Your task to perform on an android device: toggle translation in the chrome app Image 0: 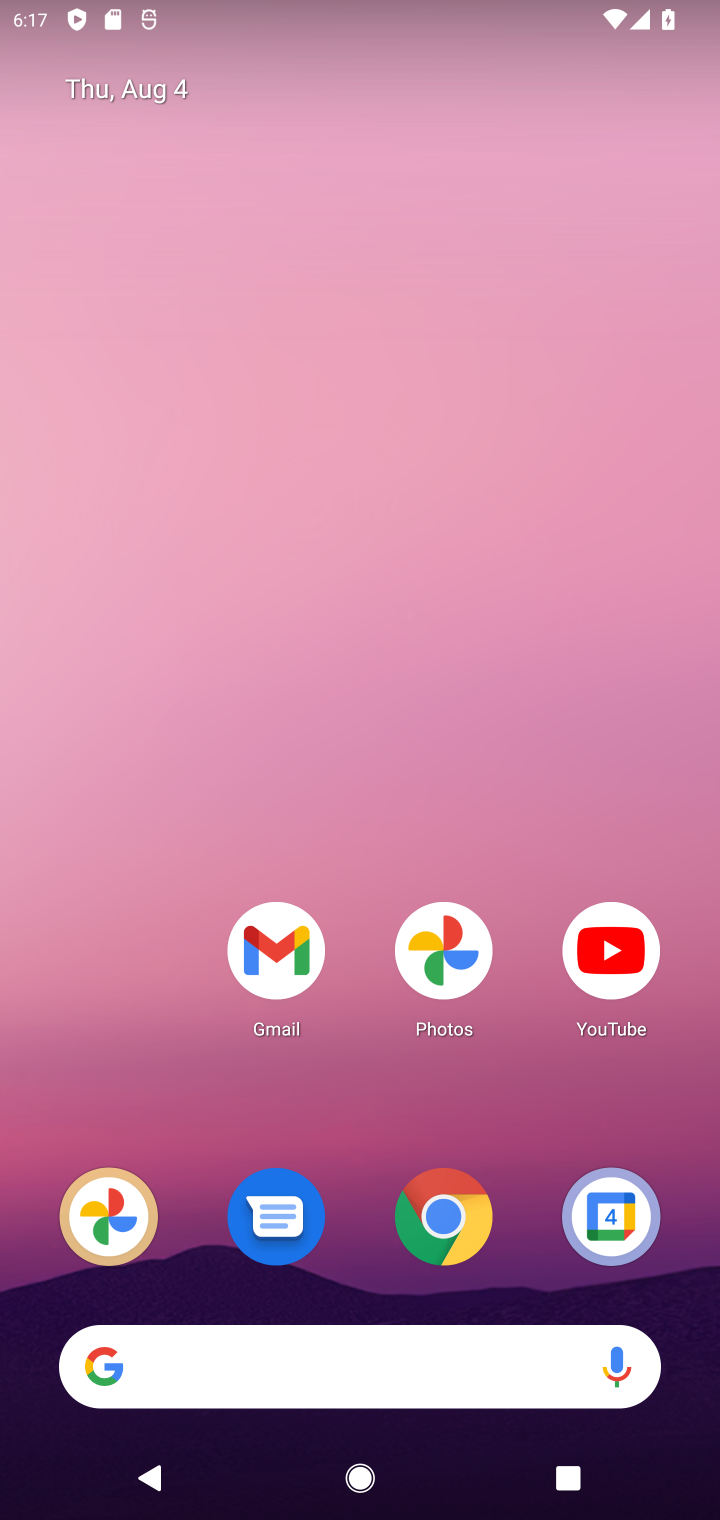
Step 0: press home button
Your task to perform on an android device: toggle translation in the chrome app Image 1: 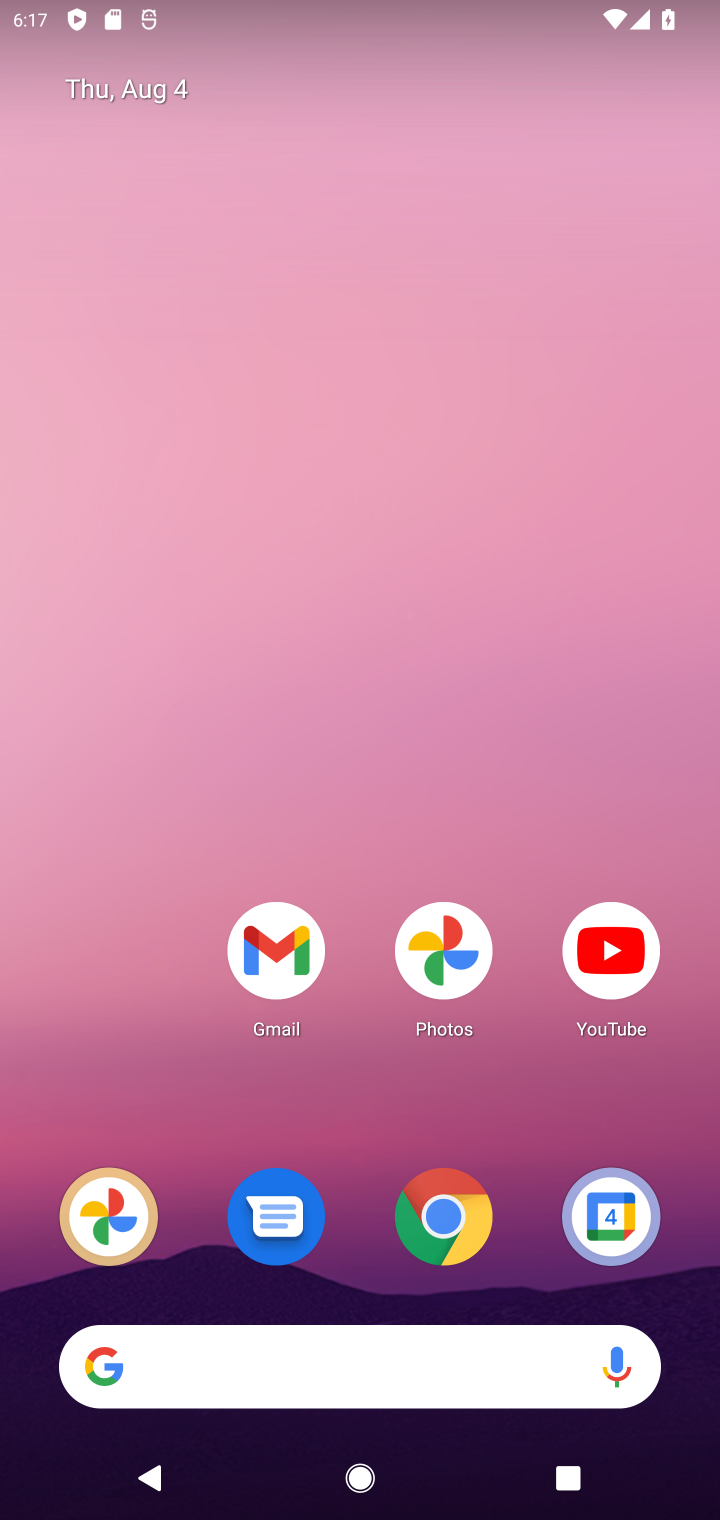
Step 1: click (480, 1197)
Your task to perform on an android device: toggle translation in the chrome app Image 2: 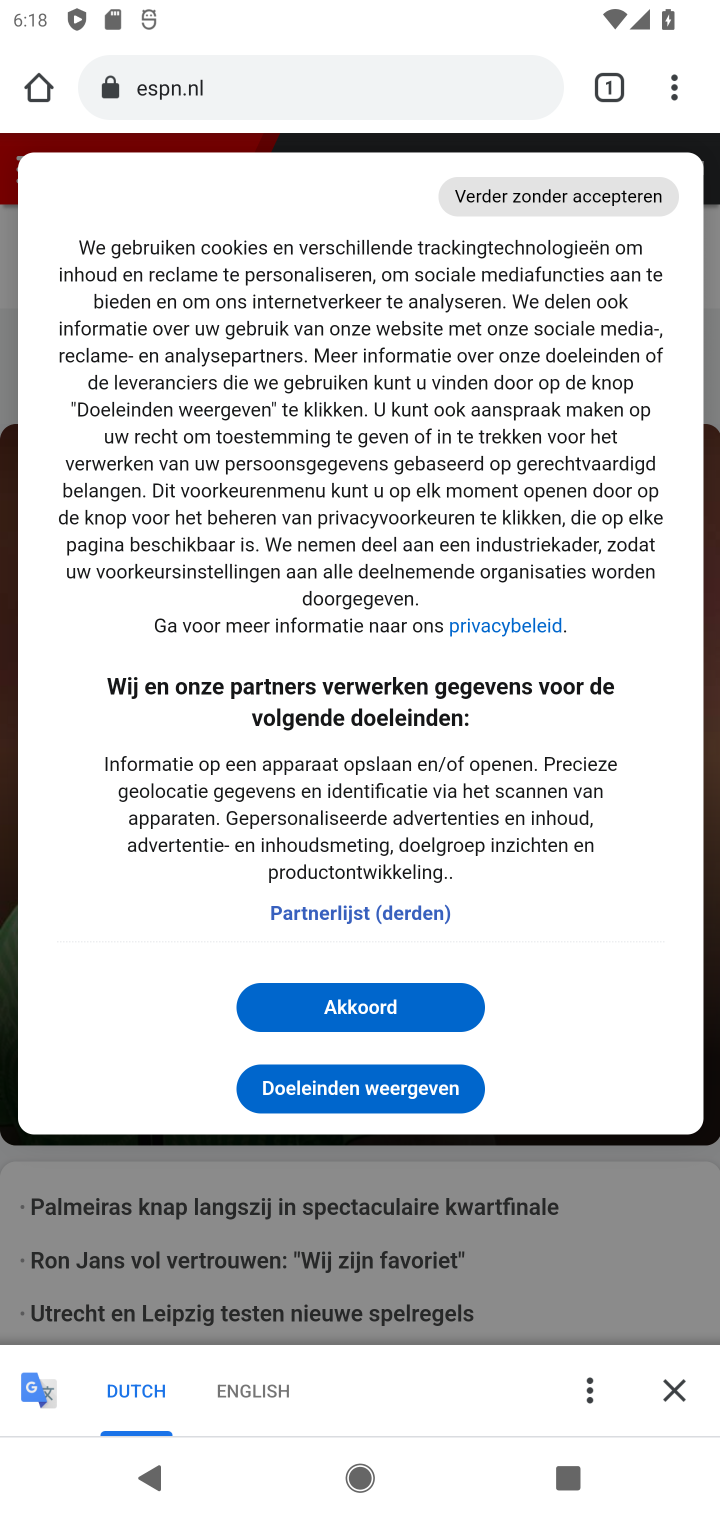
Step 2: click (668, 60)
Your task to perform on an android device: toggle translation in the chrome app Image 3: 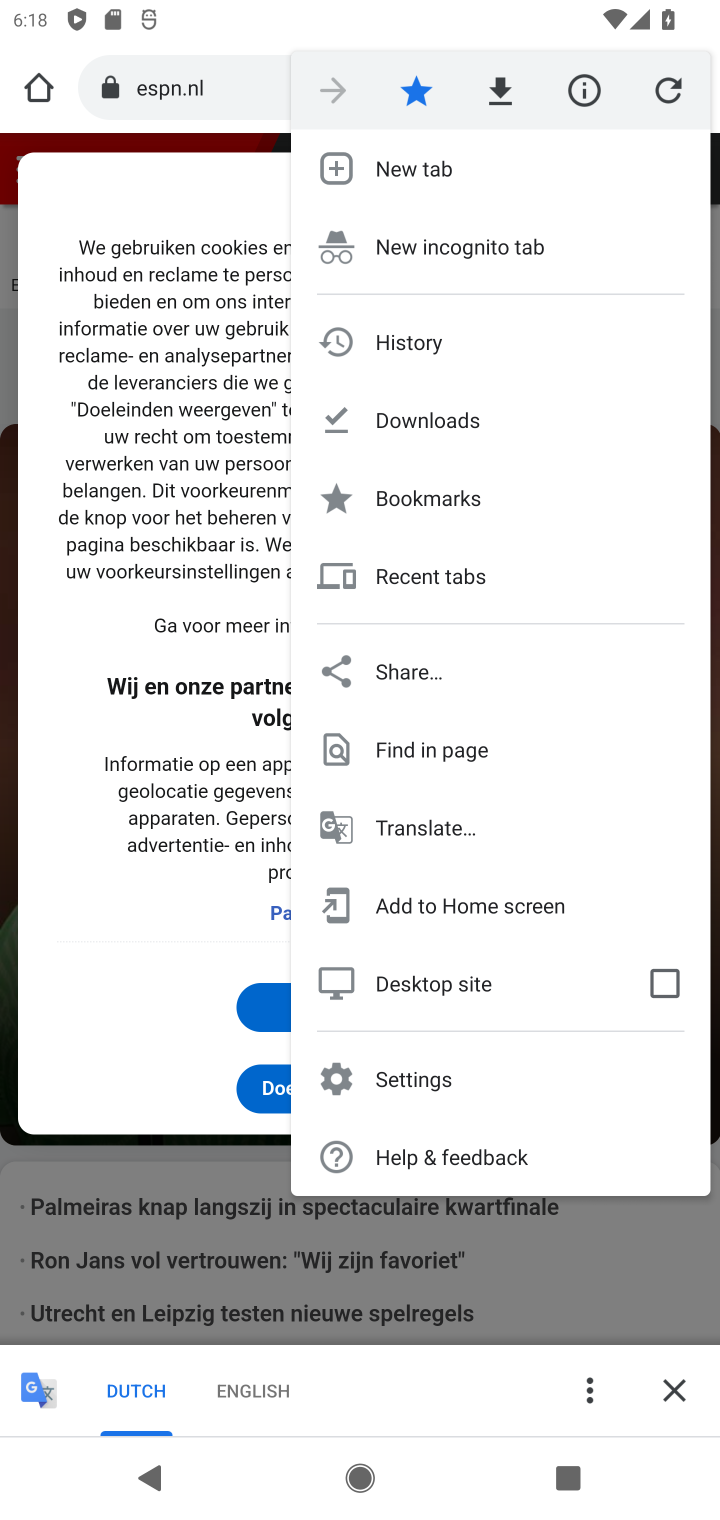
Step 3: click (447, 1062)
Your task to perform on an android device: toggle translation in the chrome app Image 4: 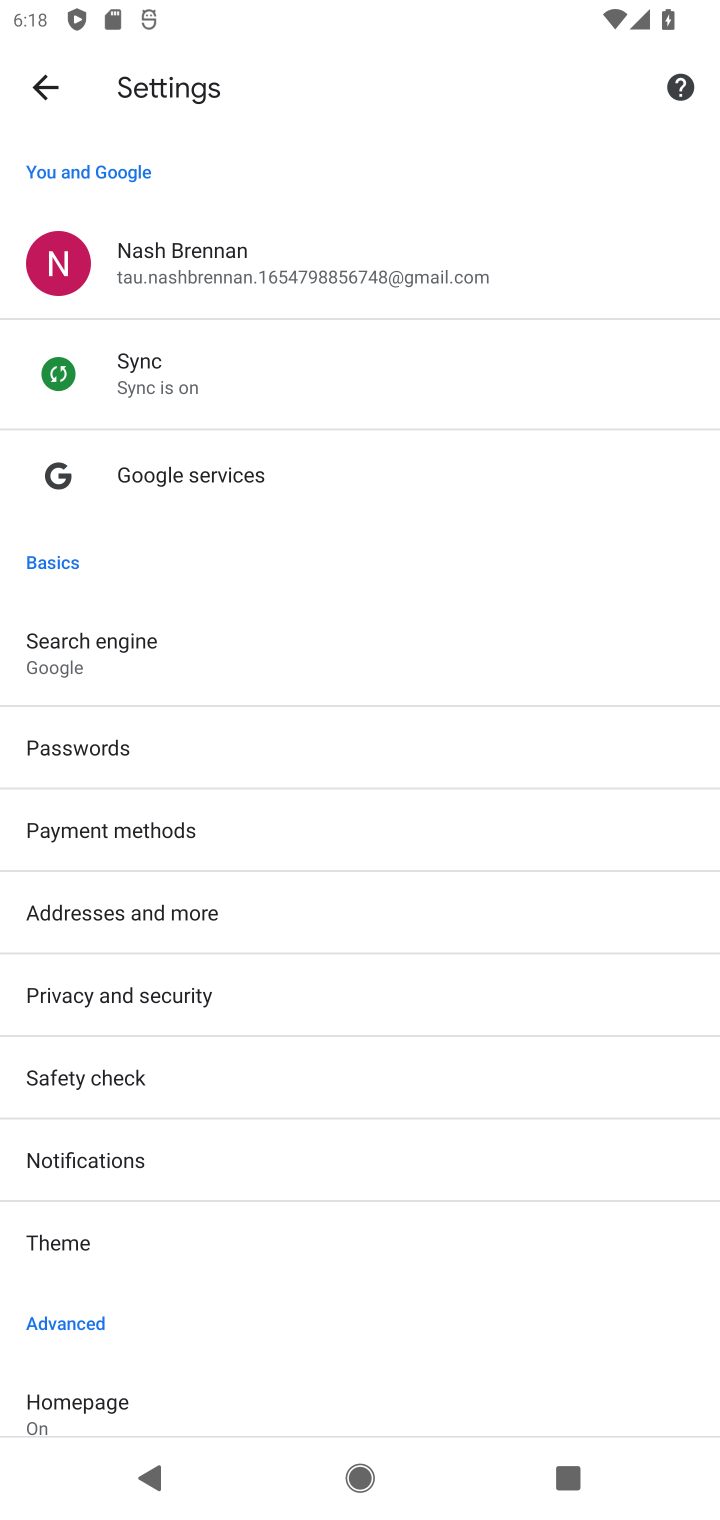
Step 4: drag from (435, 1344) to (343, 525)
Your task to perform on an android device: toggle translation in the chrome app Image 5: 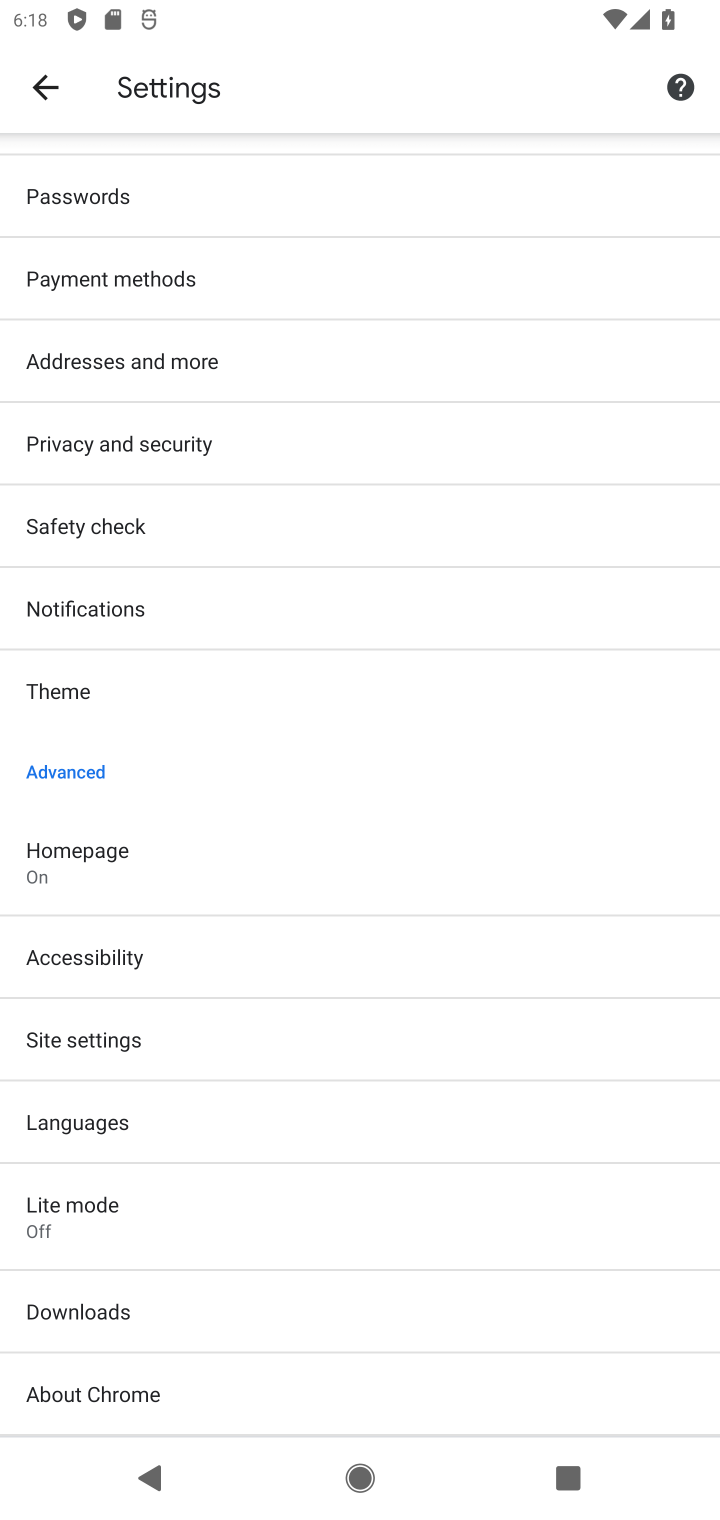
Step 5: click (193, 1125)
Your task to perform on an android device: toggle translation in the chrome app Image 6: 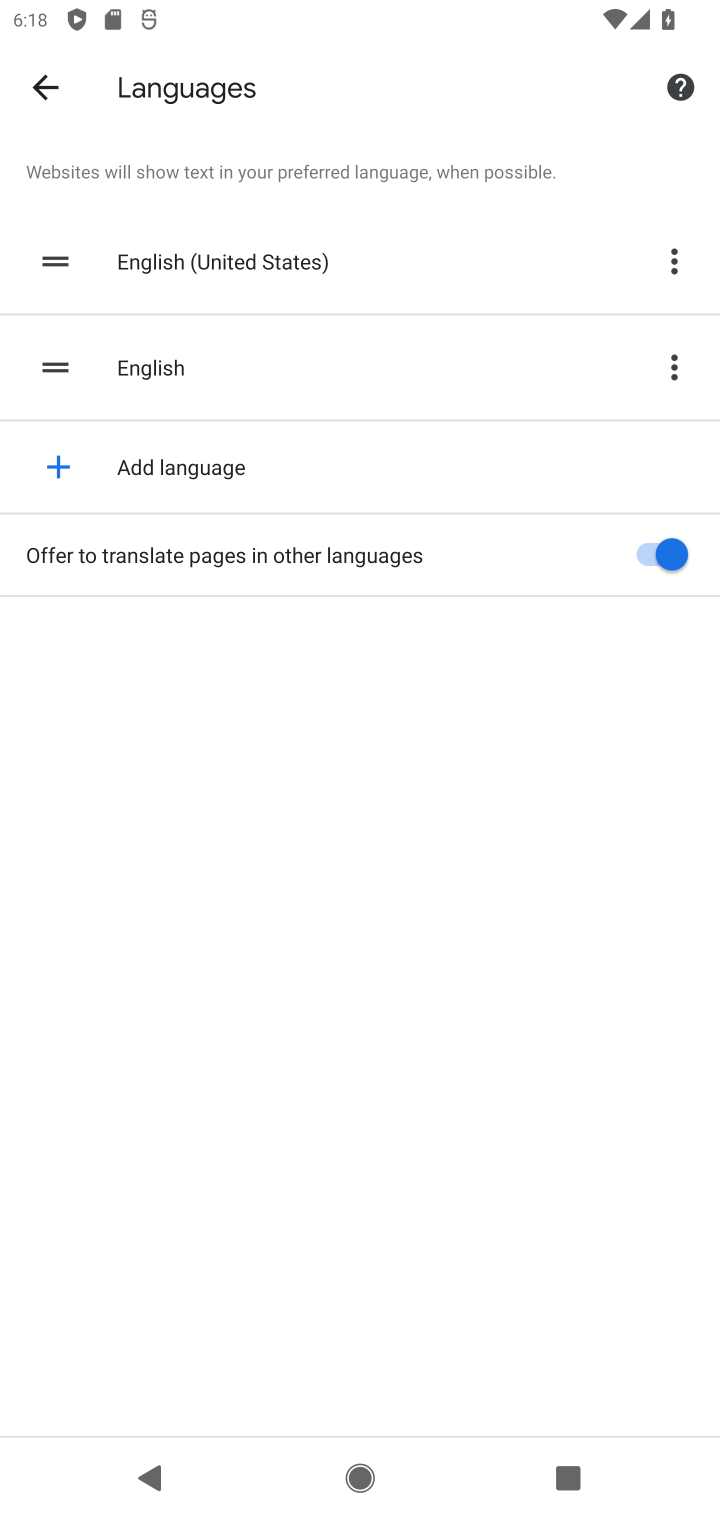
Step 6: click (667, 543)
Your task to perform on an android device: toggle translation in the chrome app Image 7: 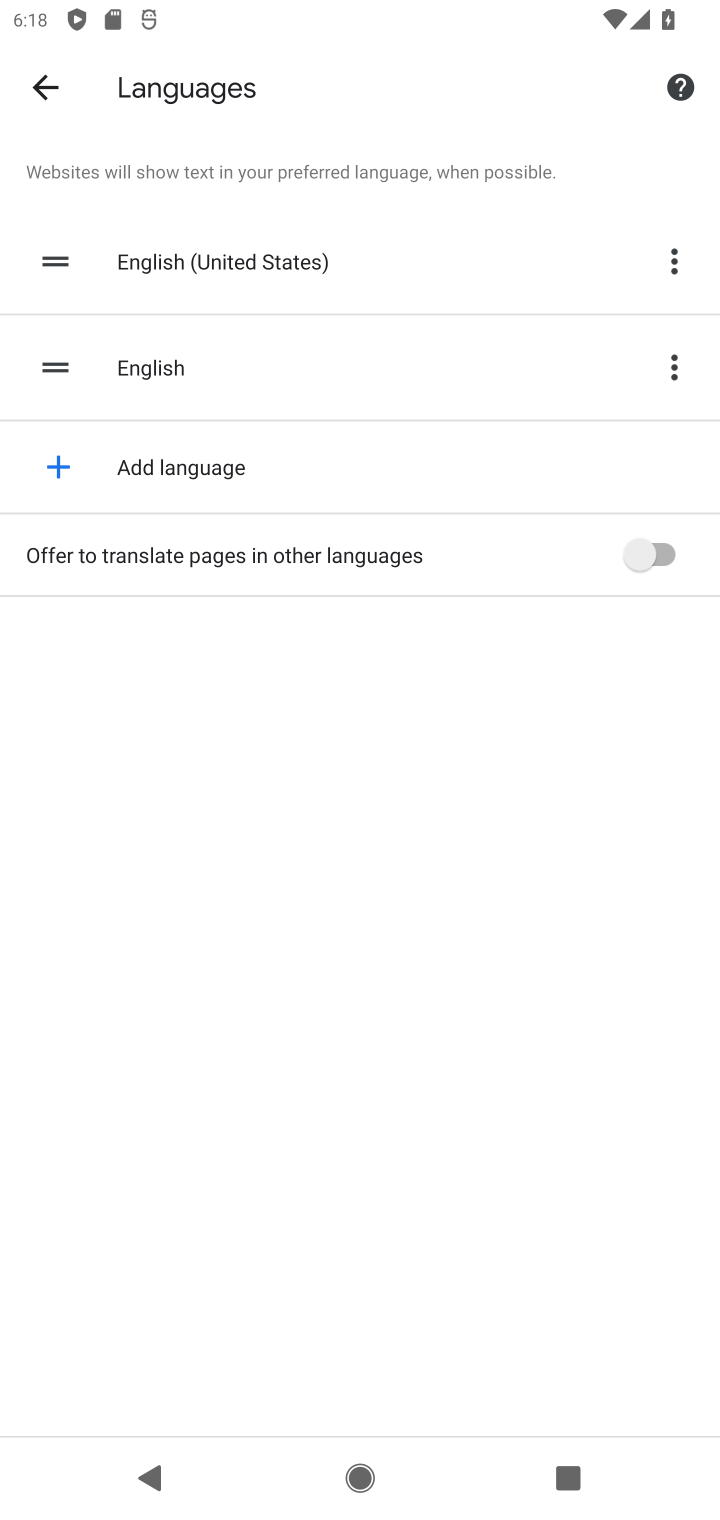
Step 7: task complete